Your task to perform on an android device: open a bookmark in the chrome app Image 0: 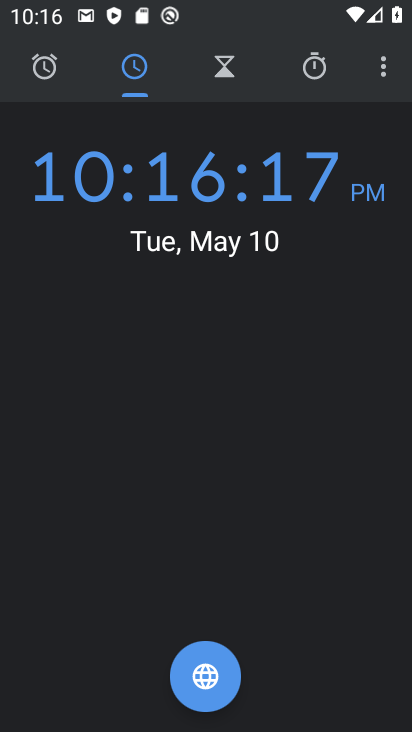
Step 0: press home button
Your task to perform on an android device: open a bookmark in the chrome app Image 1: 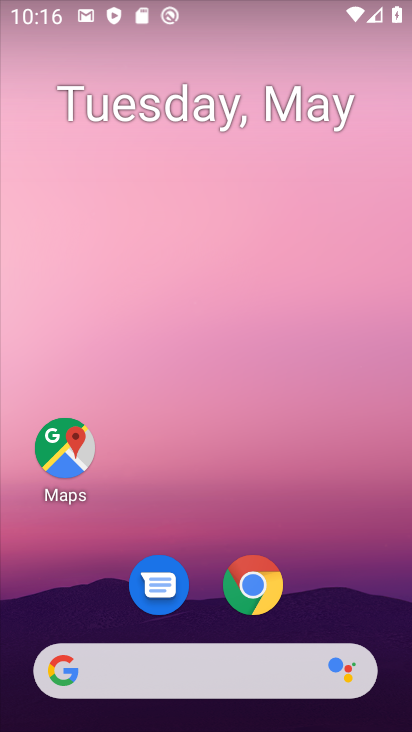
Step 1: click (258, 582)
Your task to perform on an android device: open a bookmark in the chrome app Image 2: 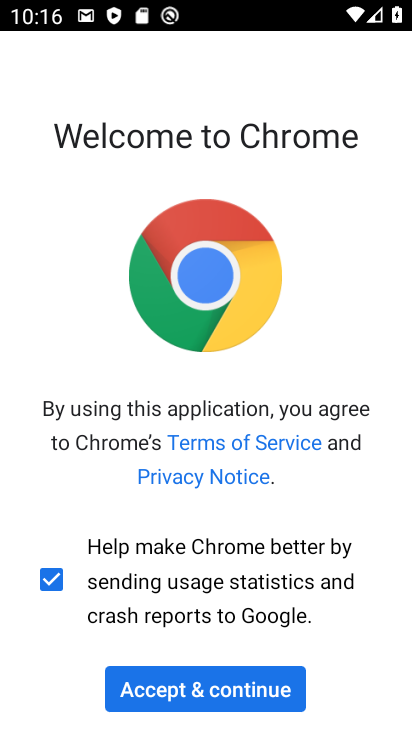
Step 2: click (249, 691)
Your task to perform on an android device: open a bookmark in the chrome app Image 3: 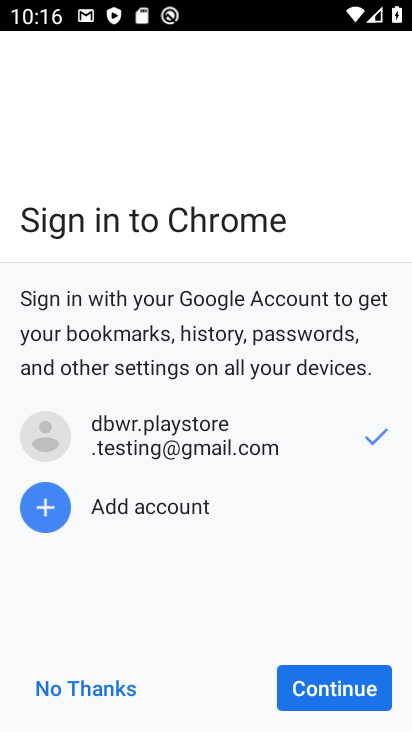
Step 3: click (301, 691)
Your task to perform on an android device: open a bookmark in the chrome app Image 4: 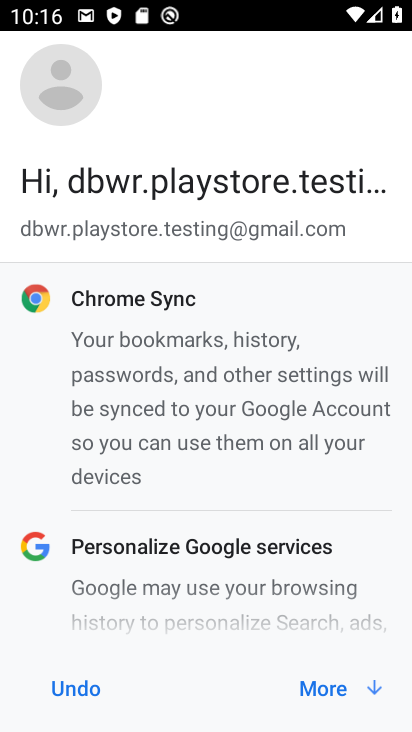
Step 4: click (316, 694)
Your task to perform on an android device: open a bookmark in the chrome app Image 5: 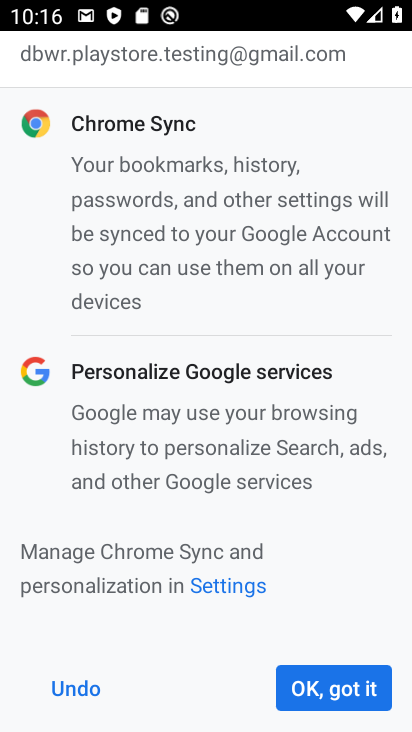
Step 5: click (352, 690)
Your task to perform on an android device: open a bookmark in the chrome app Image 6: 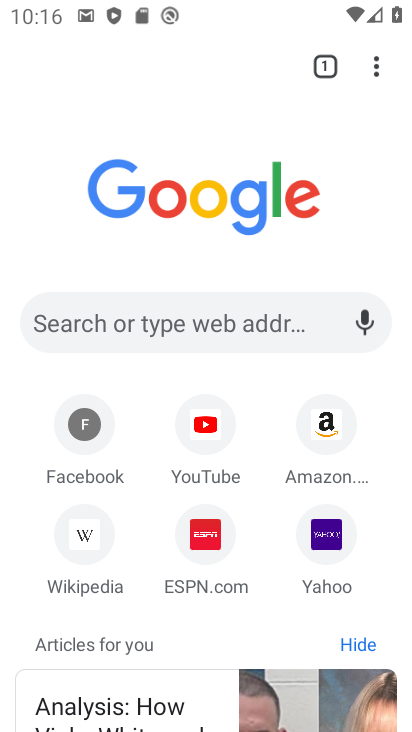
Step 6: click (370, 65)
Your task to perform on an android device: open a bookmark in the chrome app Image 7: 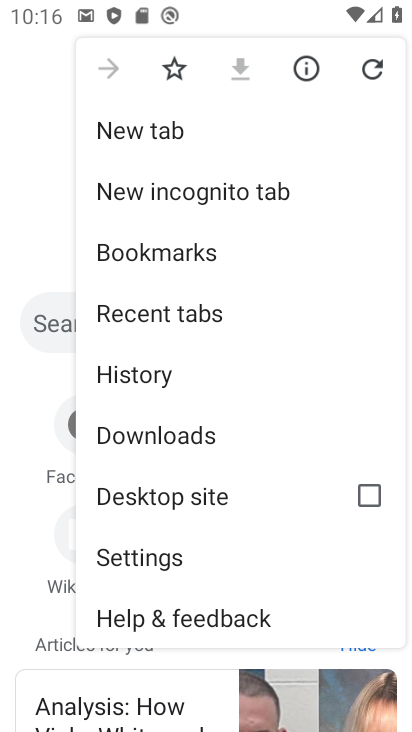
Step 7: click (206, 255)
Your task to perform on an android device: open a bookmark in the chrome app Image 8: 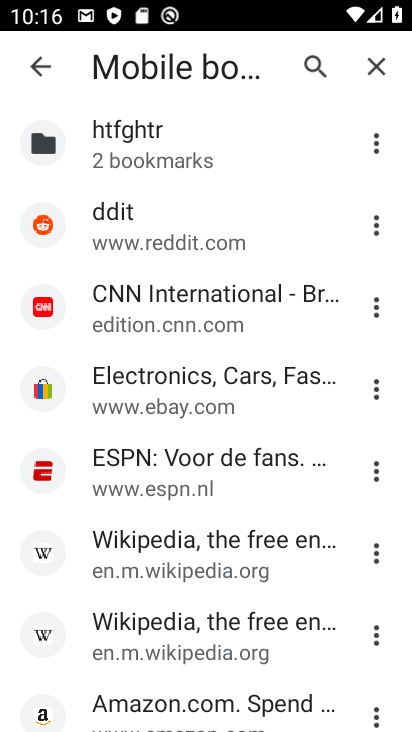
Step 8: click (206, 460)
Your task to perform on an android device: open a bookmark in the chrome app Image 9: 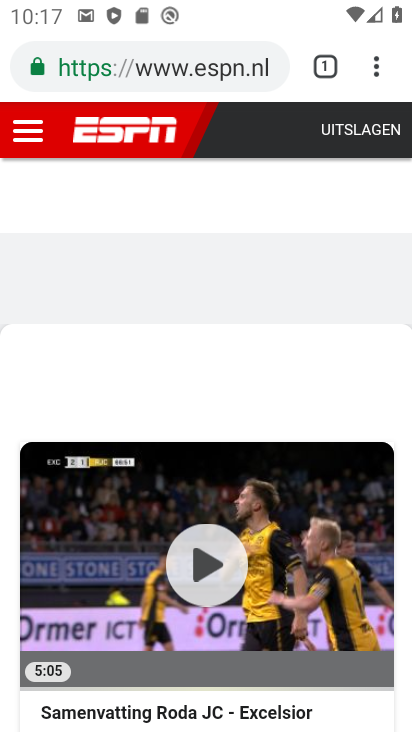
Step 9: task complete